Your task to perform on an android device: toggle pop-ups in chrome Image 0: 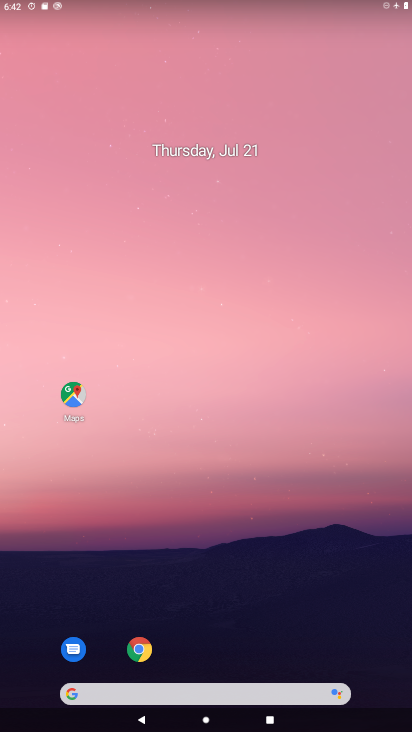
Step 0: drag from (342, 624) to (181, 32)
Your task to perform on an android device: toggle pop-ups in chrome Image 1: 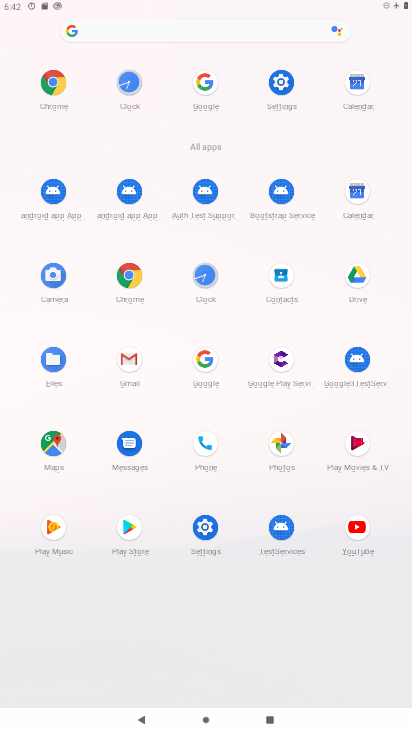
Step 1: click (124, 265)
Your task to perform on an android device: toggle pop-ups in chrome Image 2: 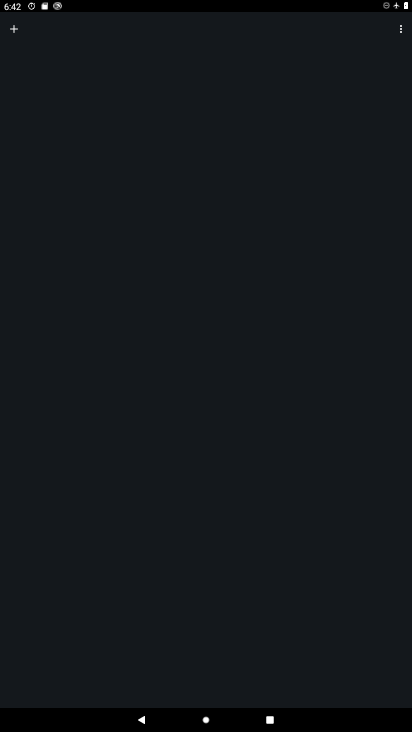
Step 2: click (397, 28)
Your task to perform on an android device: toggle pop-ups in chrome Image 3: 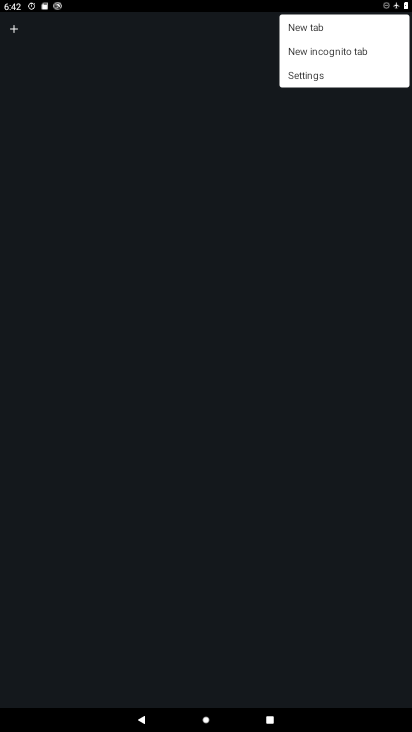
Step 3: click (304, 69)
Your task to perform on an android device: toggle pop-ups in chrome Image 4: 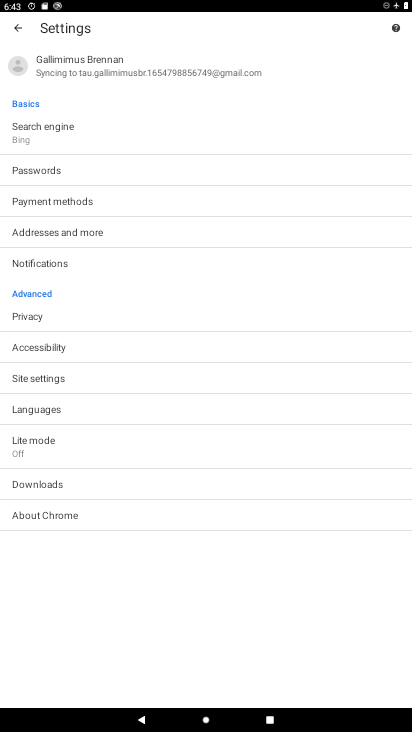
Step 4: click (52, 384)
Your task to perform on an android device: toggle pop-ups in chrome Image 5: 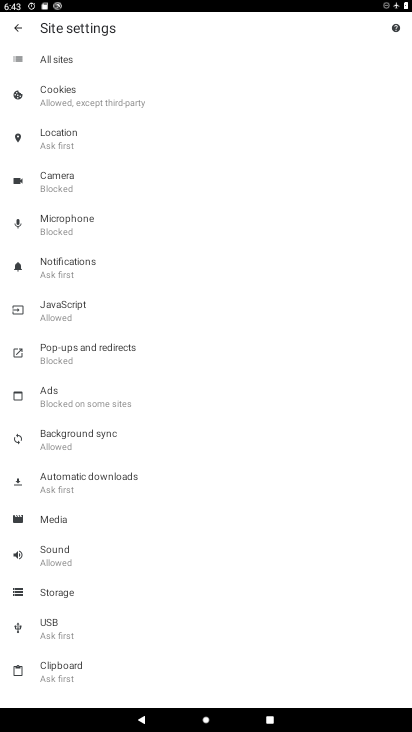
Step 5: click (67, 352)
Your task to perform on an android device: toggle pop-ups in chrome Image 6: 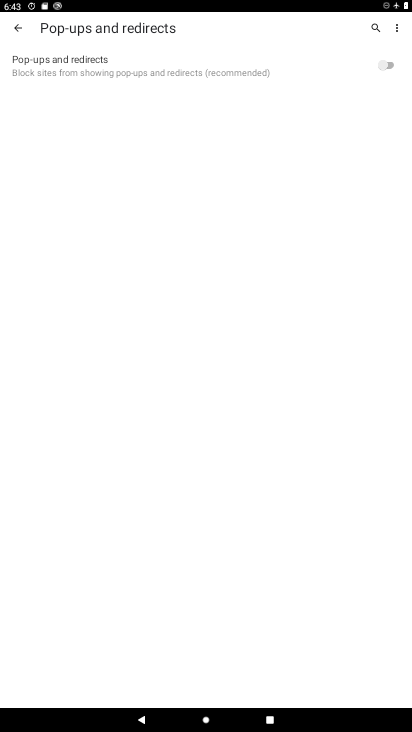
Step 6: click (384, 64)
Your task to perform on an android device: toggle pop-ups in chrome Image 7: 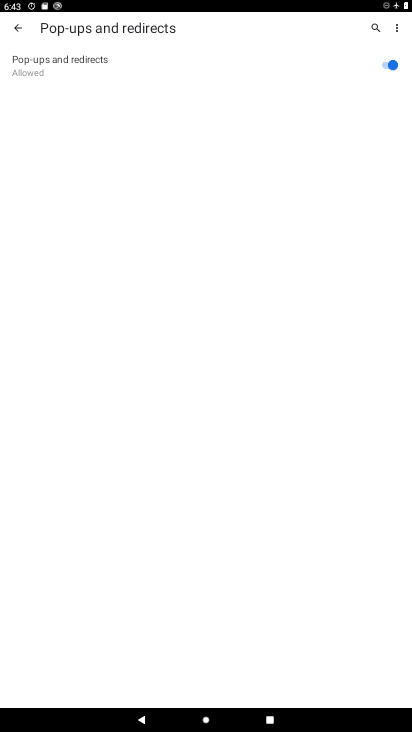
Step 7: task complete